Your task to perform on an android device: open app "Yahoo Mail" Image 0: 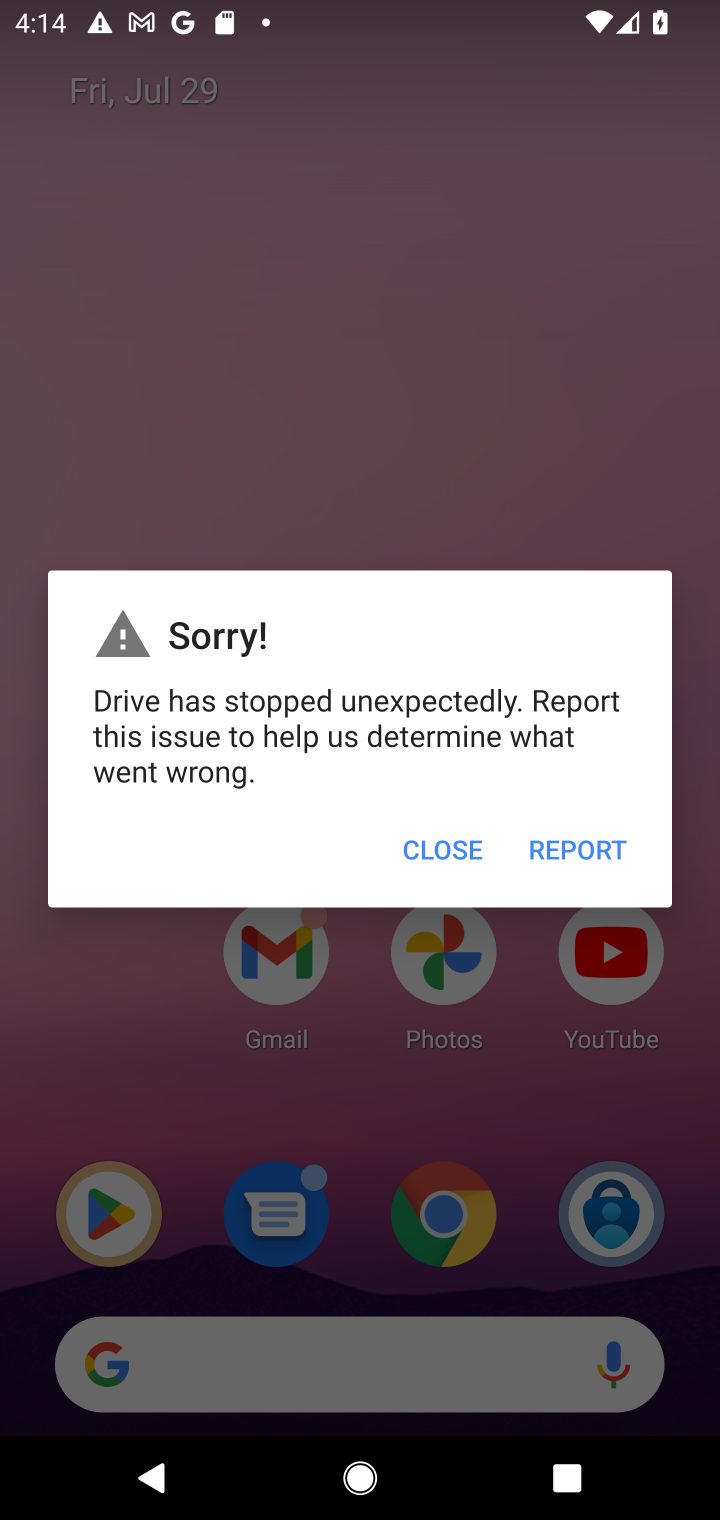
Step 0: click (426, 829)
Your task to perform on an android device: open app "Yahoo Mail" Image 1: 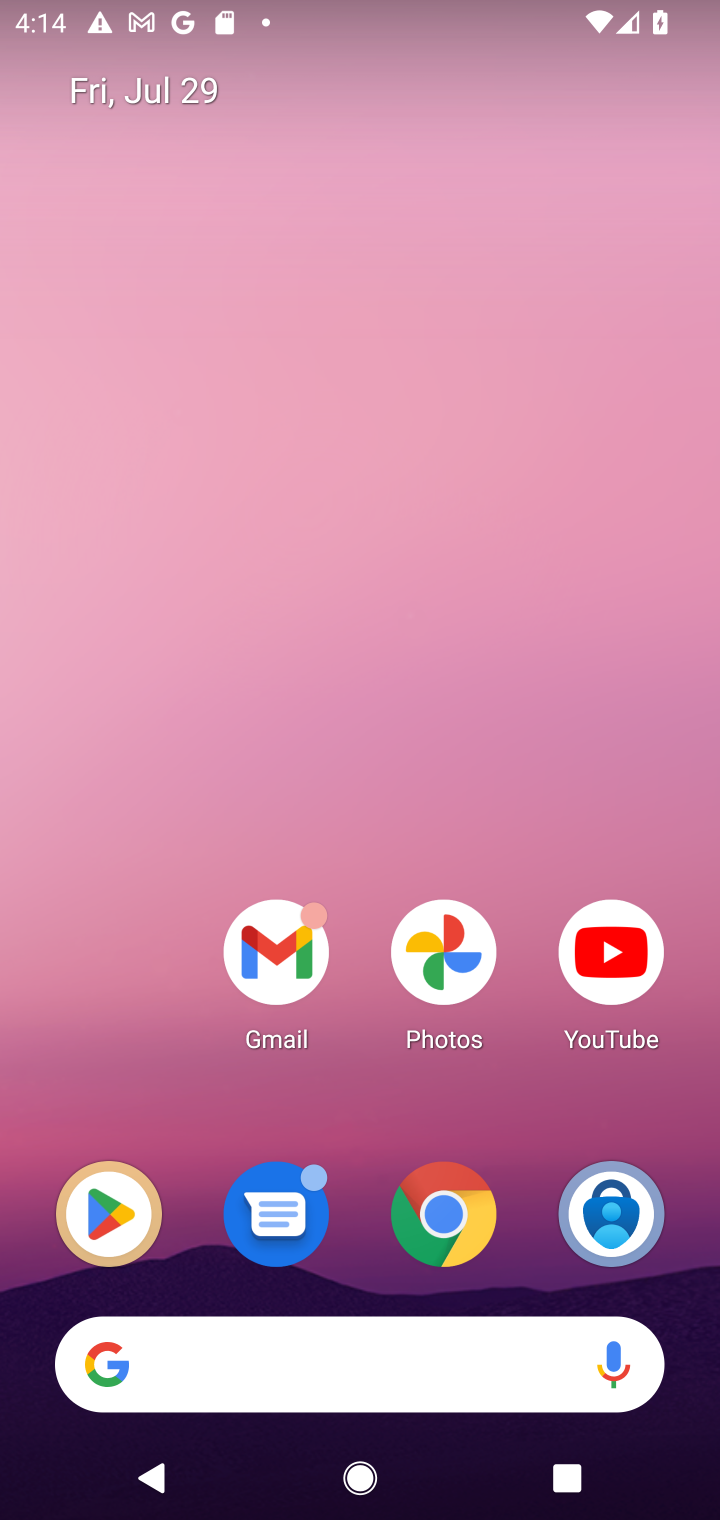
Step 1: click (118, 1209)
Your task to perform on an android device: open app "Yahoo Mail" Image 2: 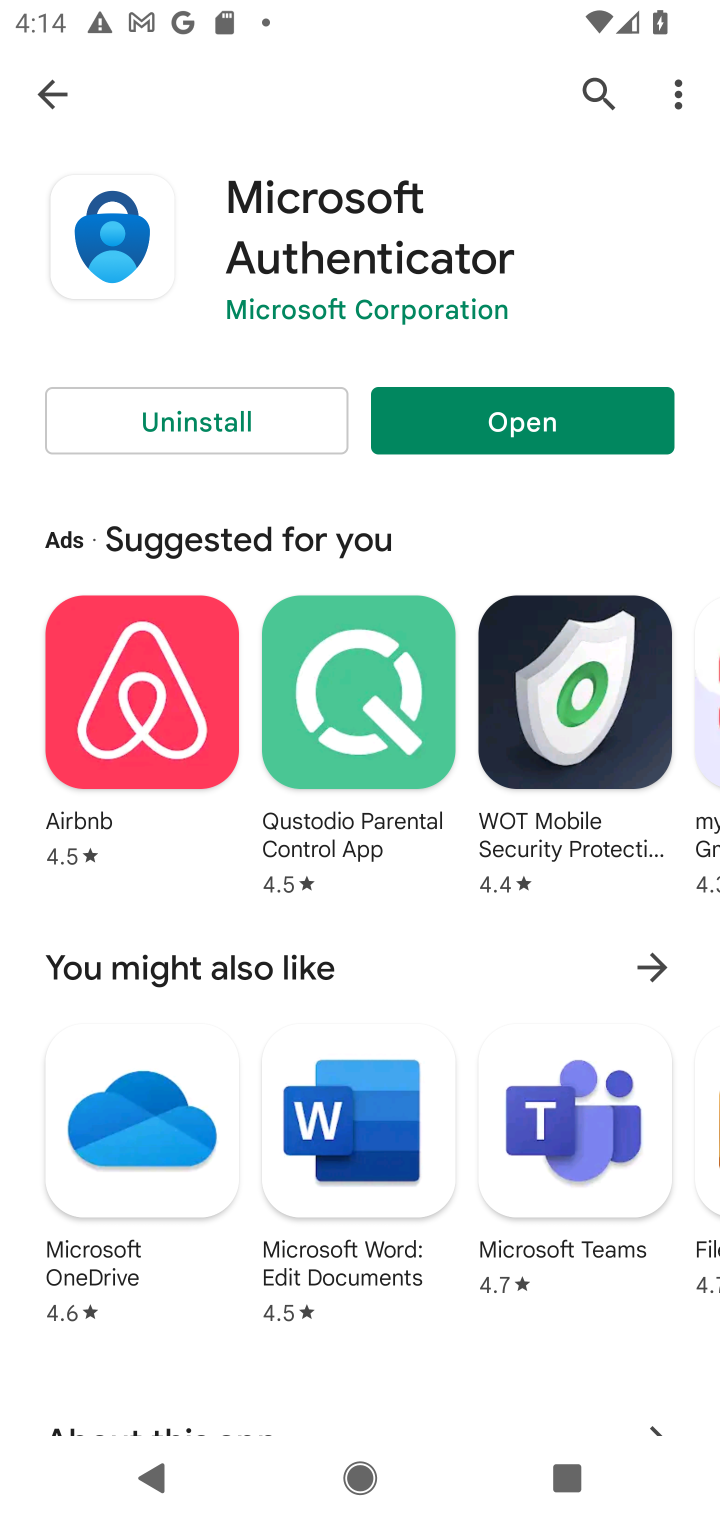
Step 2: click (58, 94)
Your task to perform on an android device: open app "Yahoo Mail" Image 3: 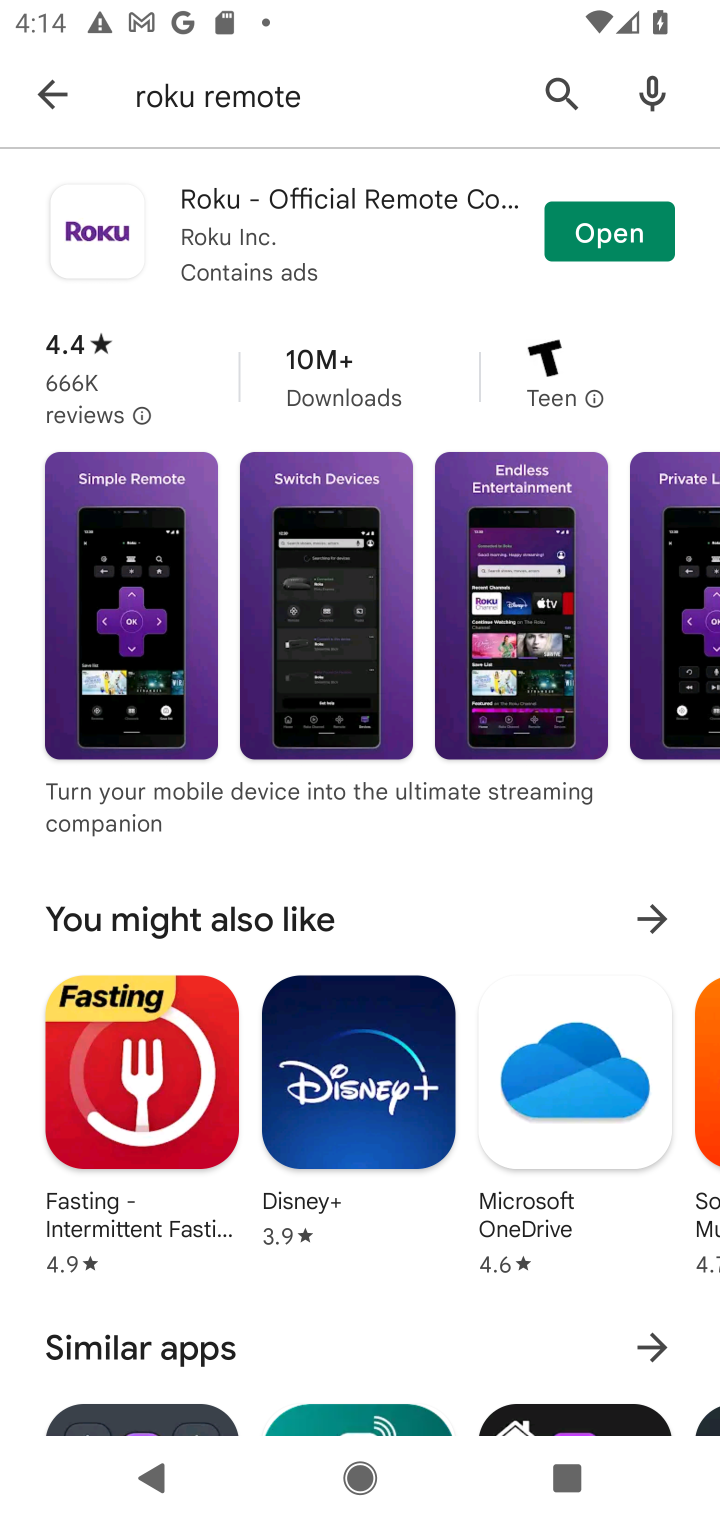
Step 3: click (279, 96)
Your task to perform on an android device: open app "Yahoo Mail" Image 4: 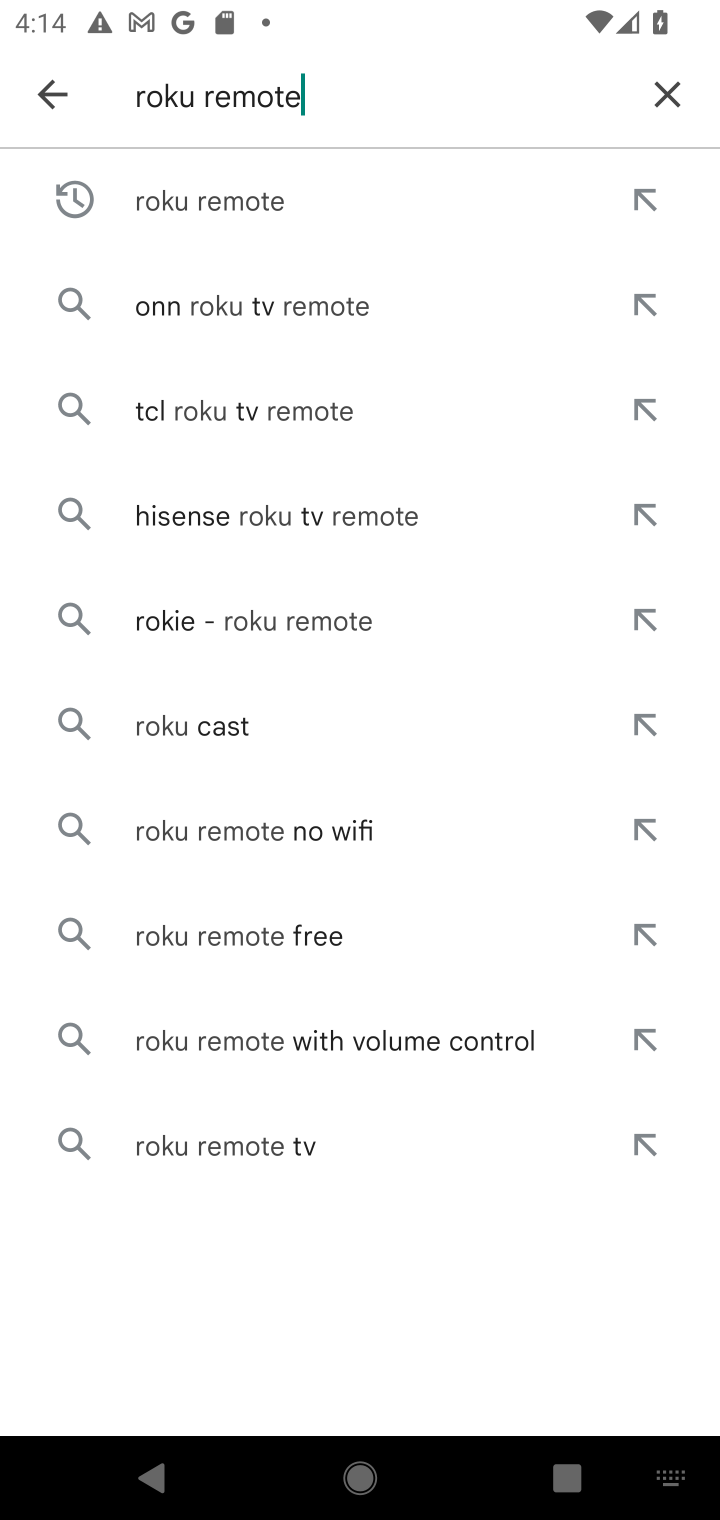
Step 4: click (662, 109)
Your task to perform on an android device: open app "Yahoo Mail" Image 5: 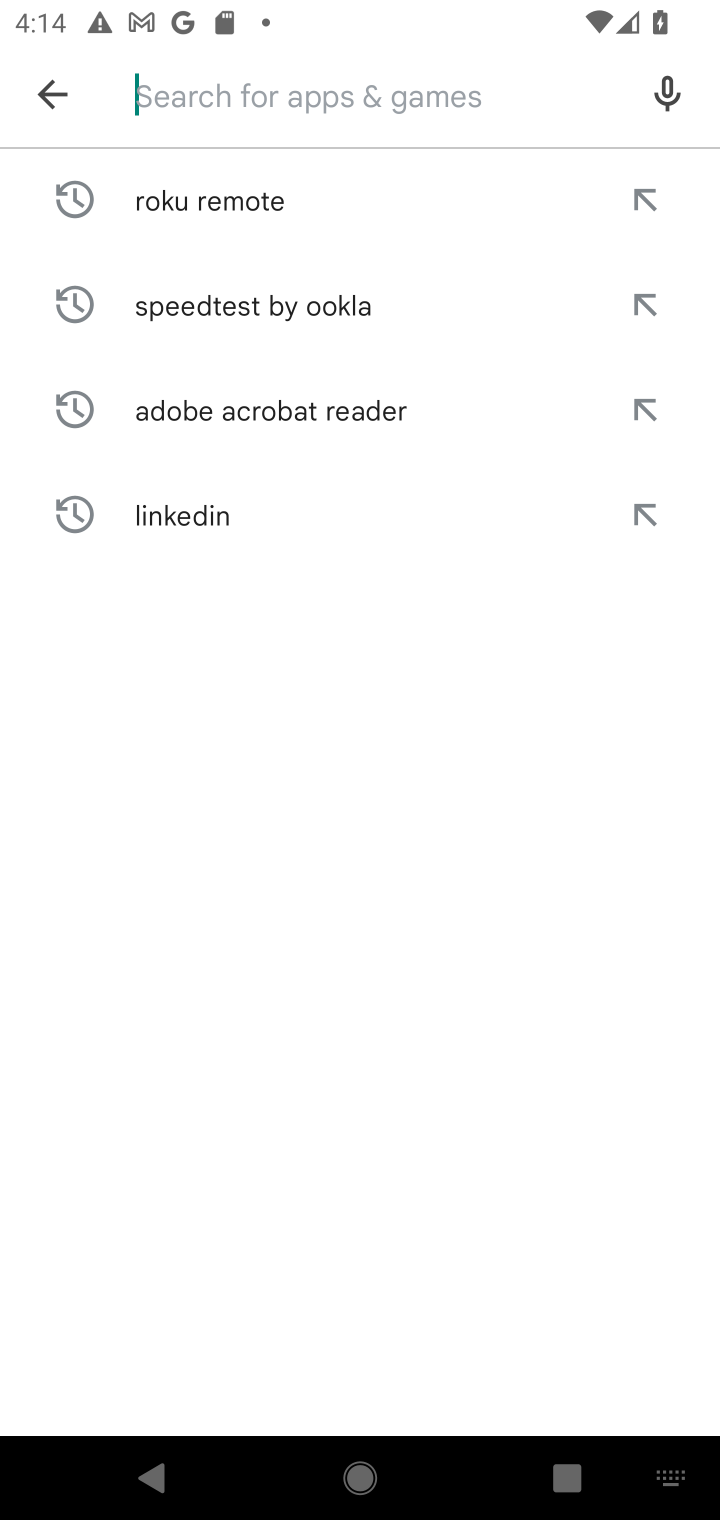
Step 5: type "Yahoo Mail"
Your task to perform on an android device: open app "Yahoo Mail" Image 6: 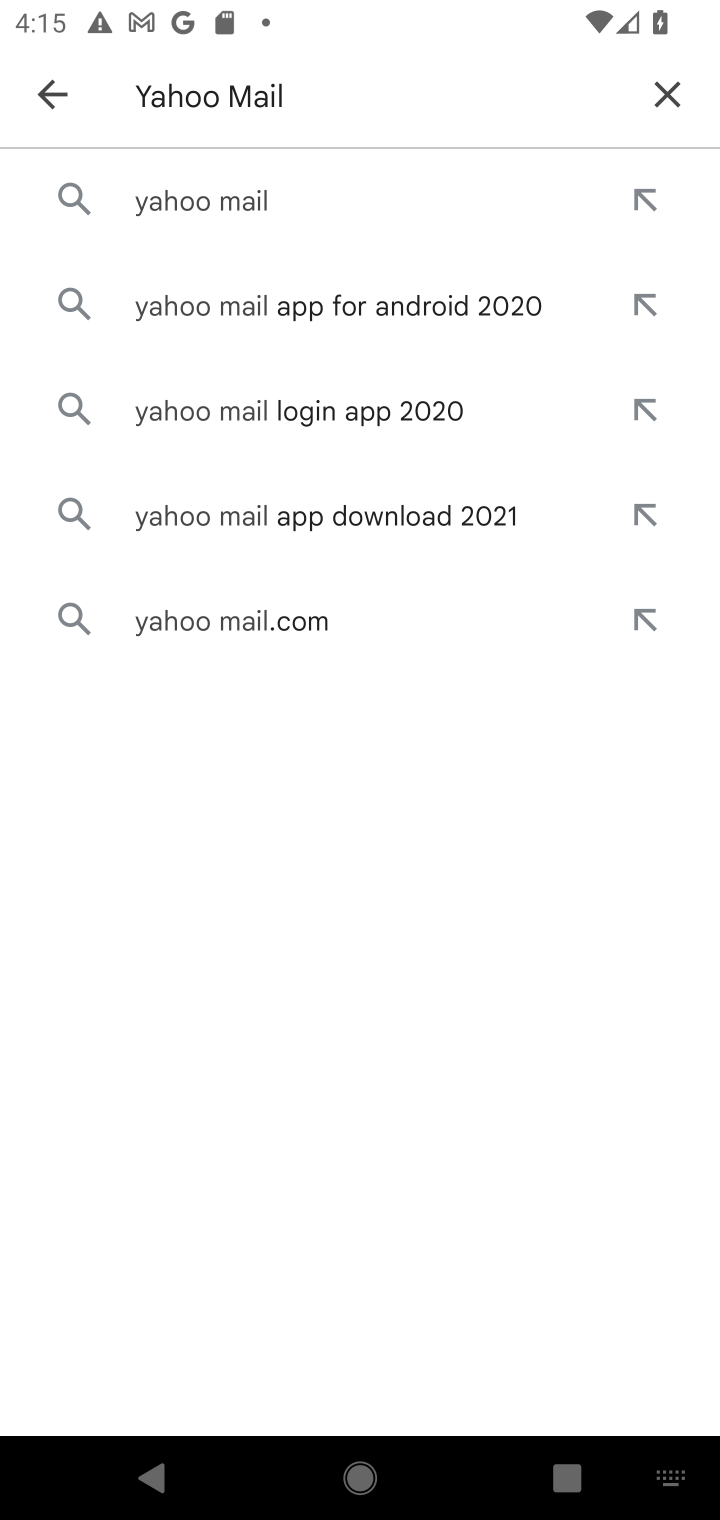
Step 6: click (245, 199)
Your task to perform on an android device: open app "Yahoo Mail" Image 7: 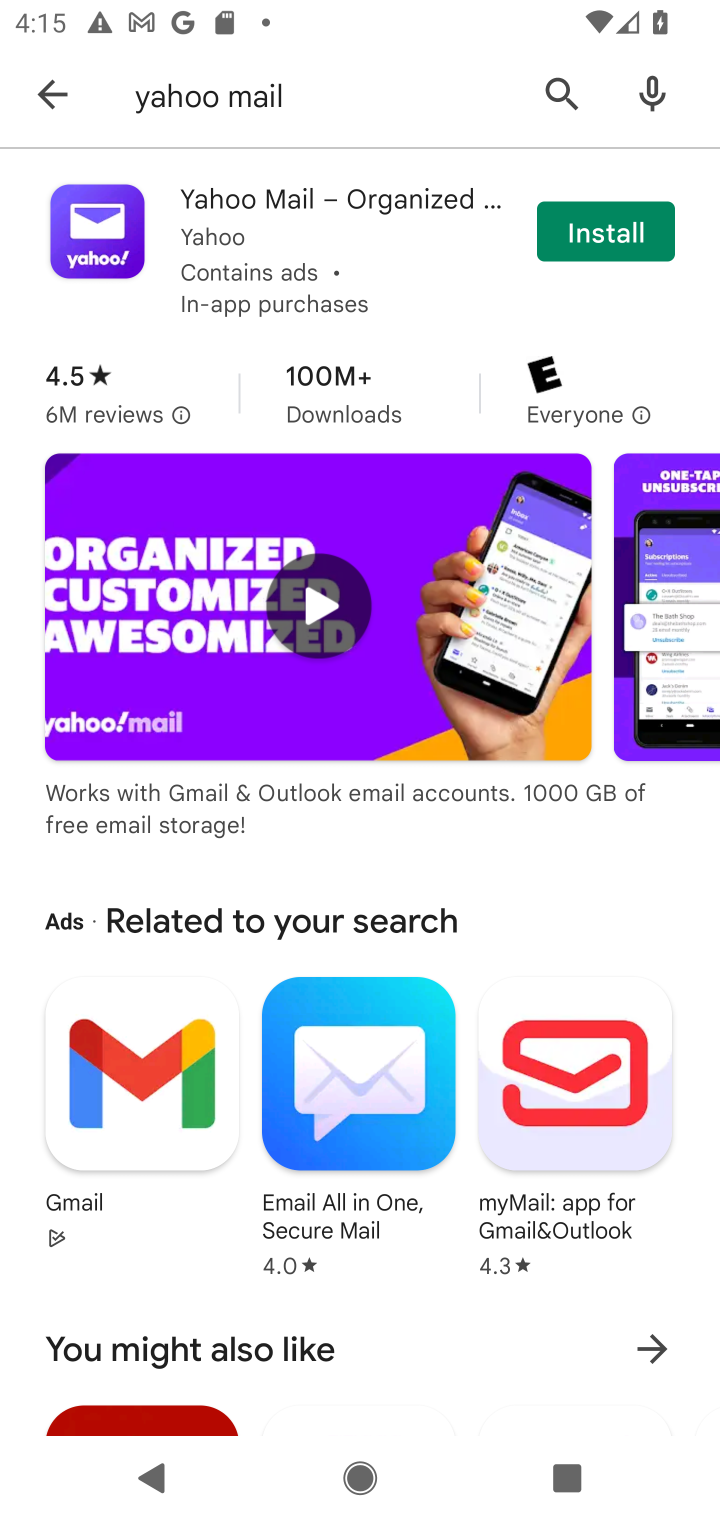
Step 7: task complete